Your task to perform on an android device: Clear the shopping cart on bestbuy.com. Search for "razer blade" on bestbuy.com, select the first entry, and add it to the cart. Image 0: 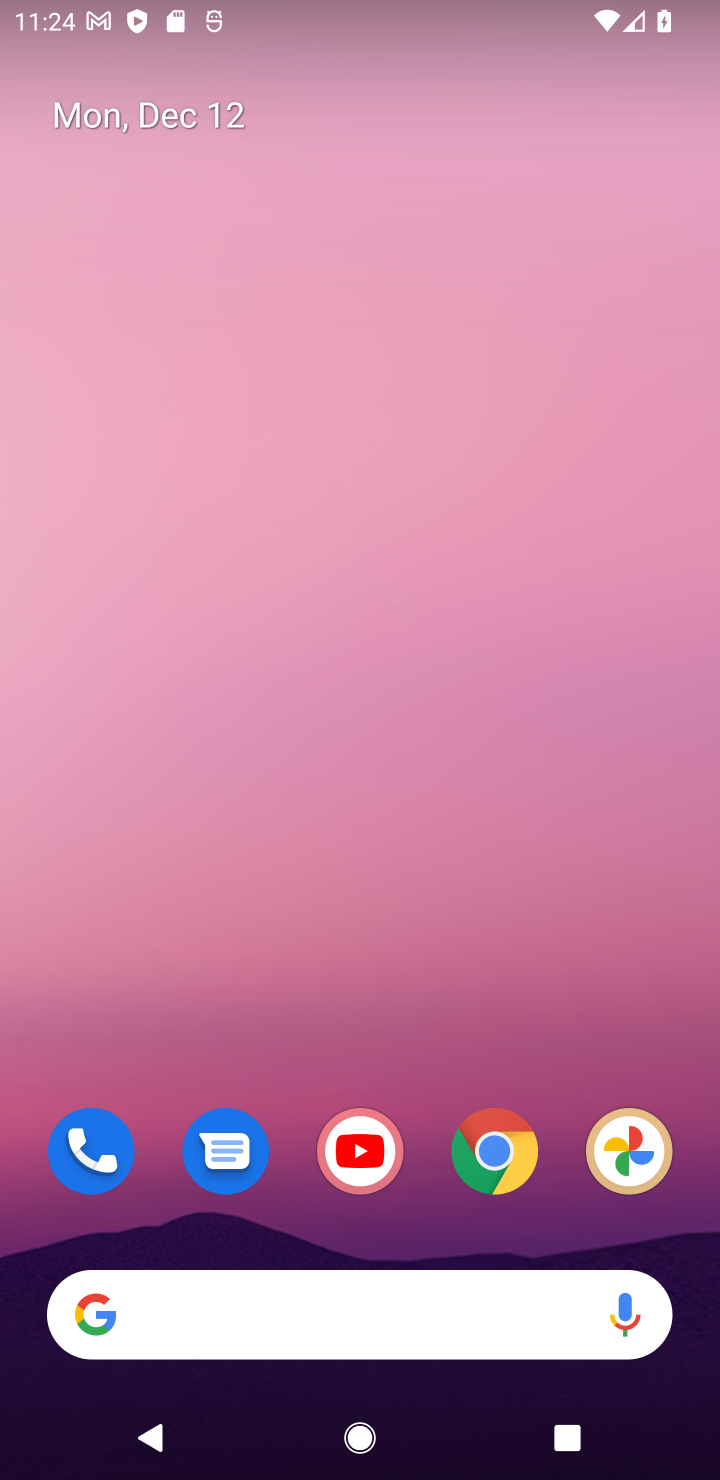
Step 0: drag from (351, 1257) to (449, 75)
Your task to perform on an android device: Clear the shopping cart on bestbuy.com. Search for "razer blade" on bestbuy.com, select the first entry, and add it to the cart. Image 1: 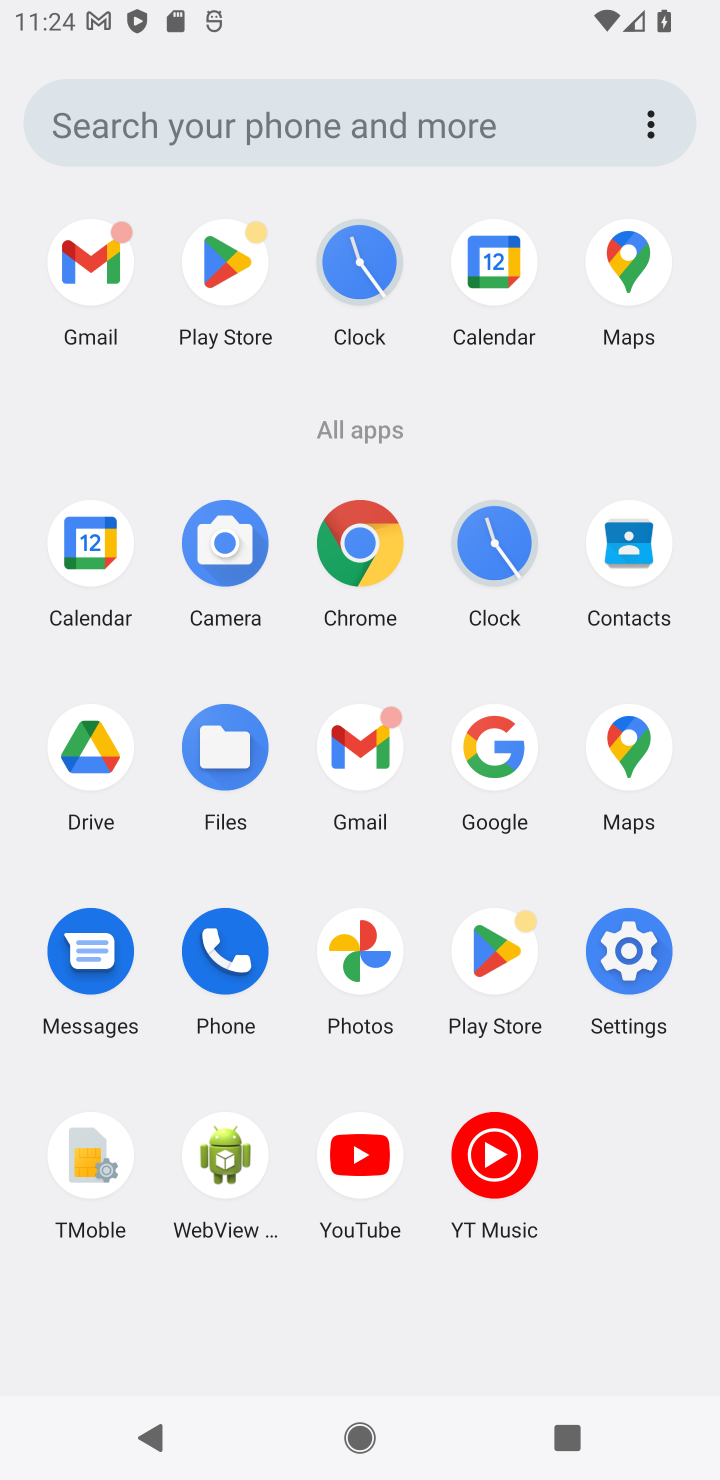
Step 1: click (521, 752)
Your task to perform on an android device: Clear the shopping cart on bestbuy.com. Search for "razer blade" on bestbuy.com, select the first entry, and add it to the cart. Image 2: 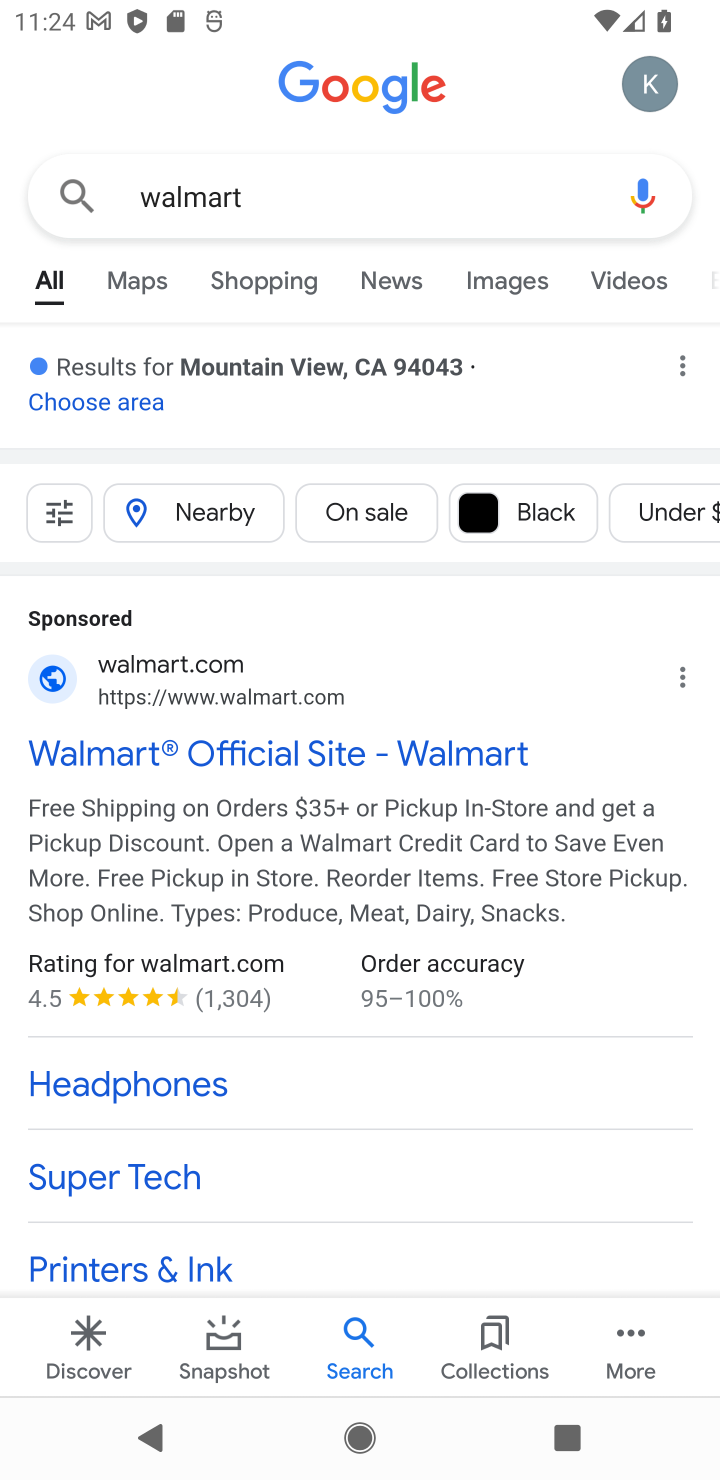
Step 2: click (216, 190)
Your task to perform on an android device: Clear the shopping cart on bestbuy.com. Search for "razer blade" on bestbuy.com, select the first entry, and add it to the cart. Image 3: 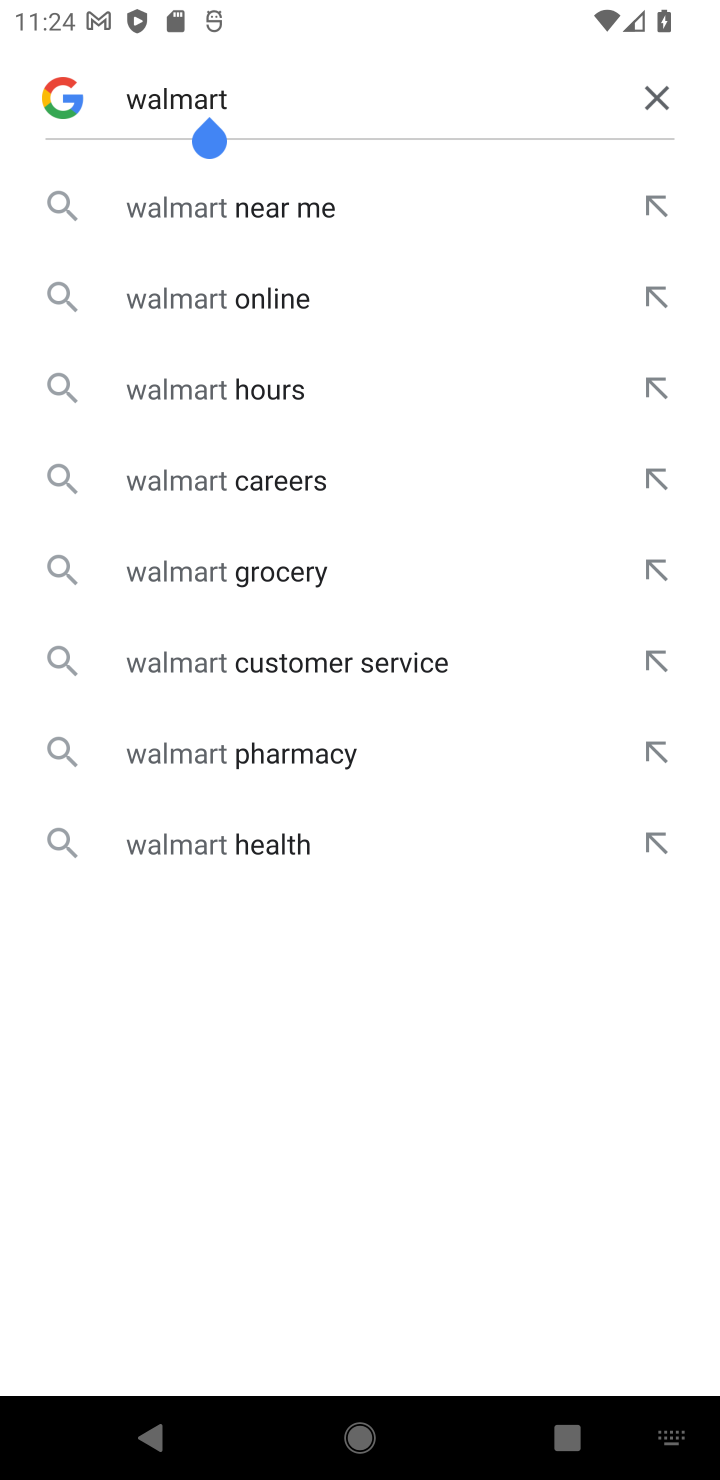
Step 3: click (655, 96)
Your task to perform on an android device: Clear the shopping cart on bestbuy.com. Search for "razer blade" on bestbuy.com, select the first entry, and add it to the cart. Image 4: 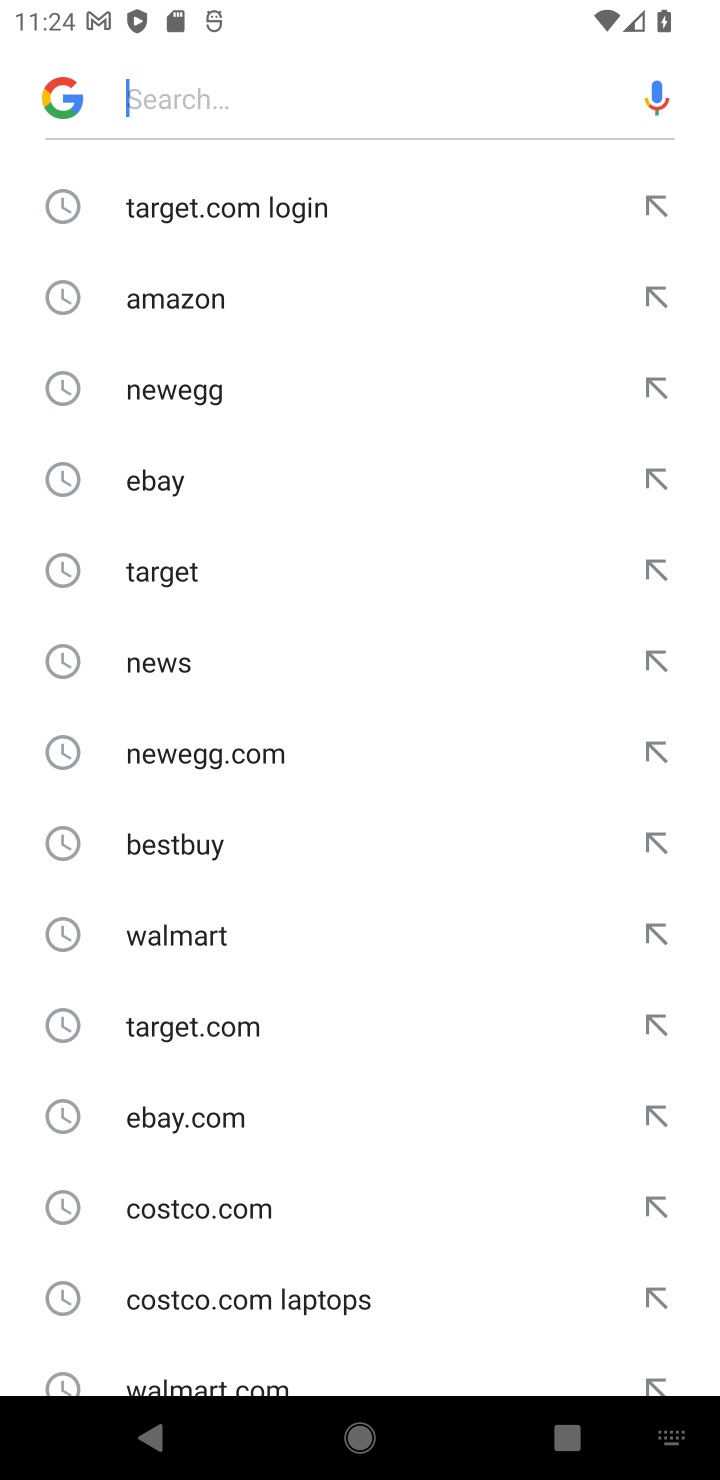
Step 4: click (196, 843)
Your task to perform on an android device: Clear the shopping cart on bestbuy.com. Search for "razer blade" on bestbuy.com, select the first entry, and add it to the cart. Image 5: 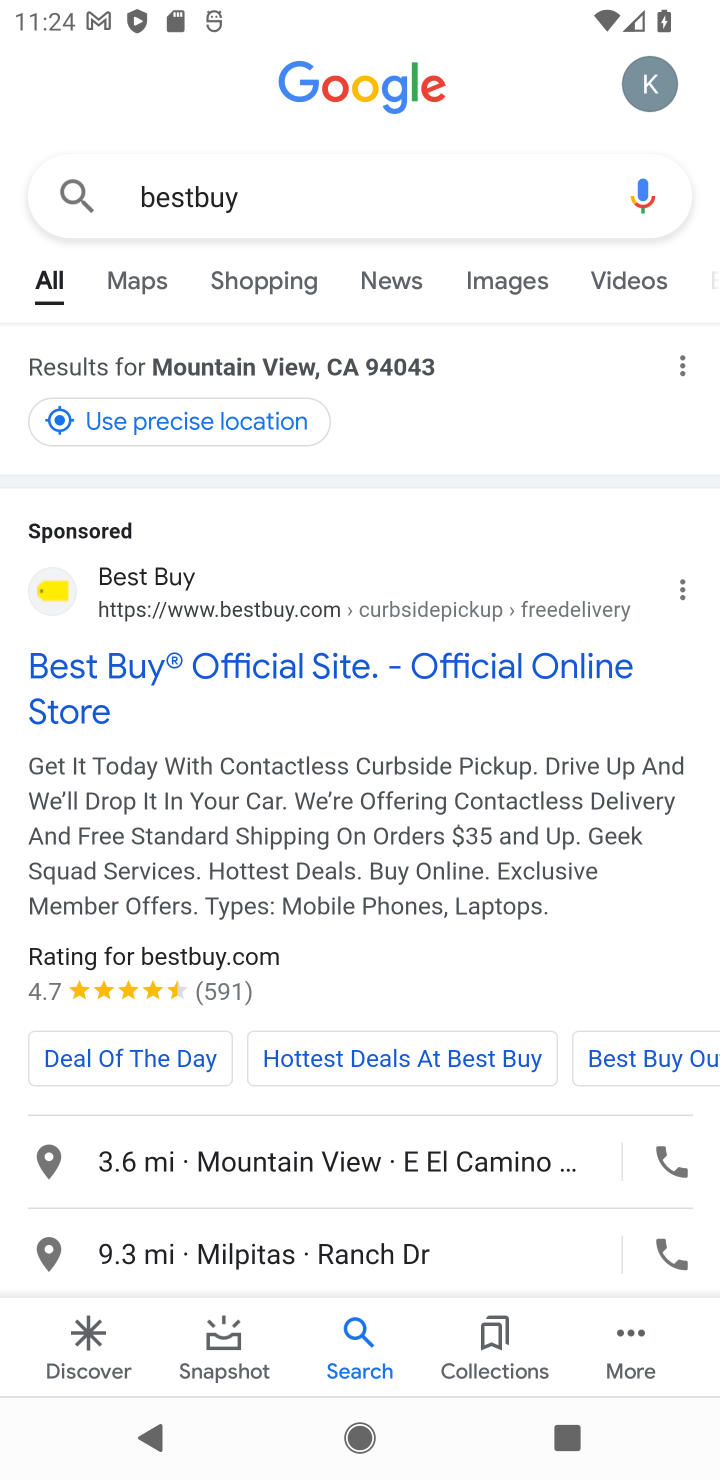
Step 5: click (140, 683)
Your task to perform on an android device: Clear the shopping cart on bestbuy.com. Search for "razer blade" on bestbuy.com, select the first entry, and add it to the cart. Image 6: 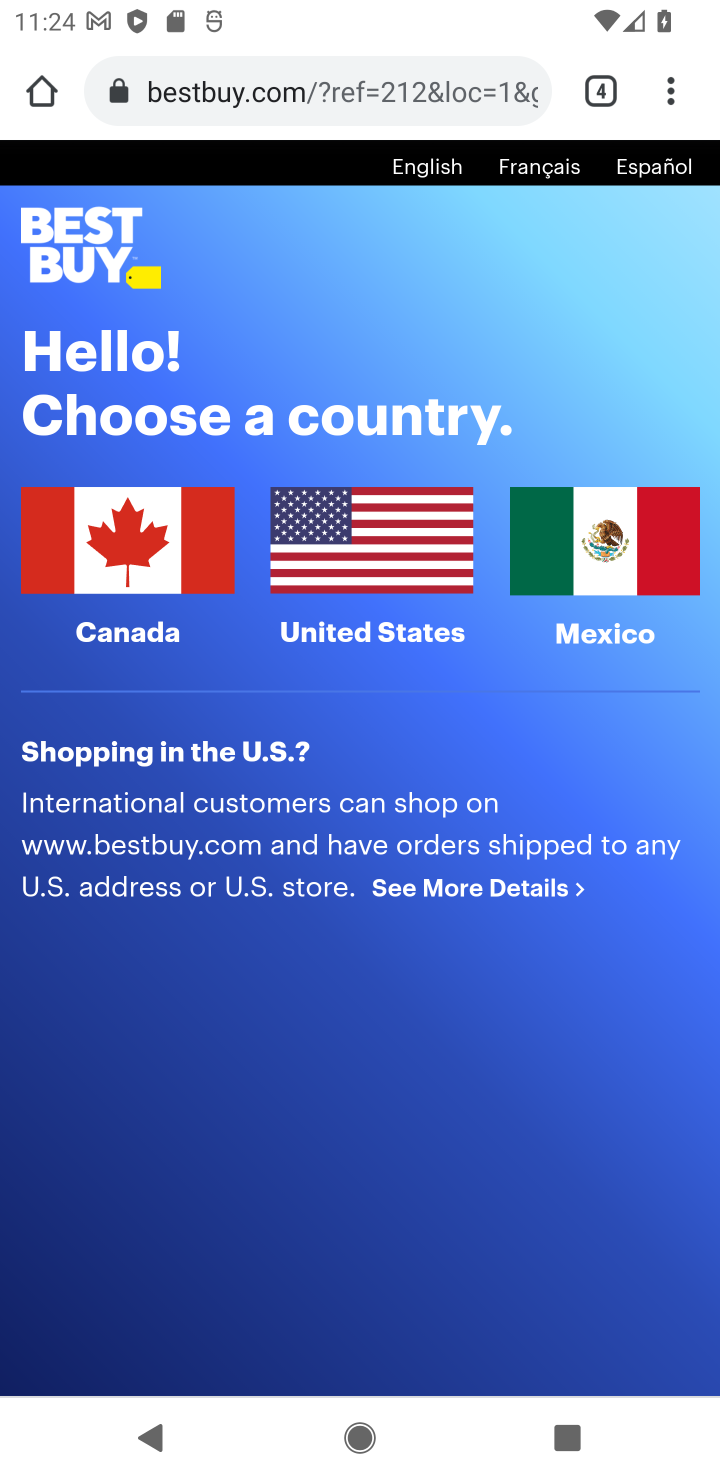
Step 6: click (375, 554)
Your task to perform on an android device: Clear the shopping cart on bestbuy.com. Search for "razer blade" on bestbuy.com, select the first entry, and add it to the cart. Image 7: 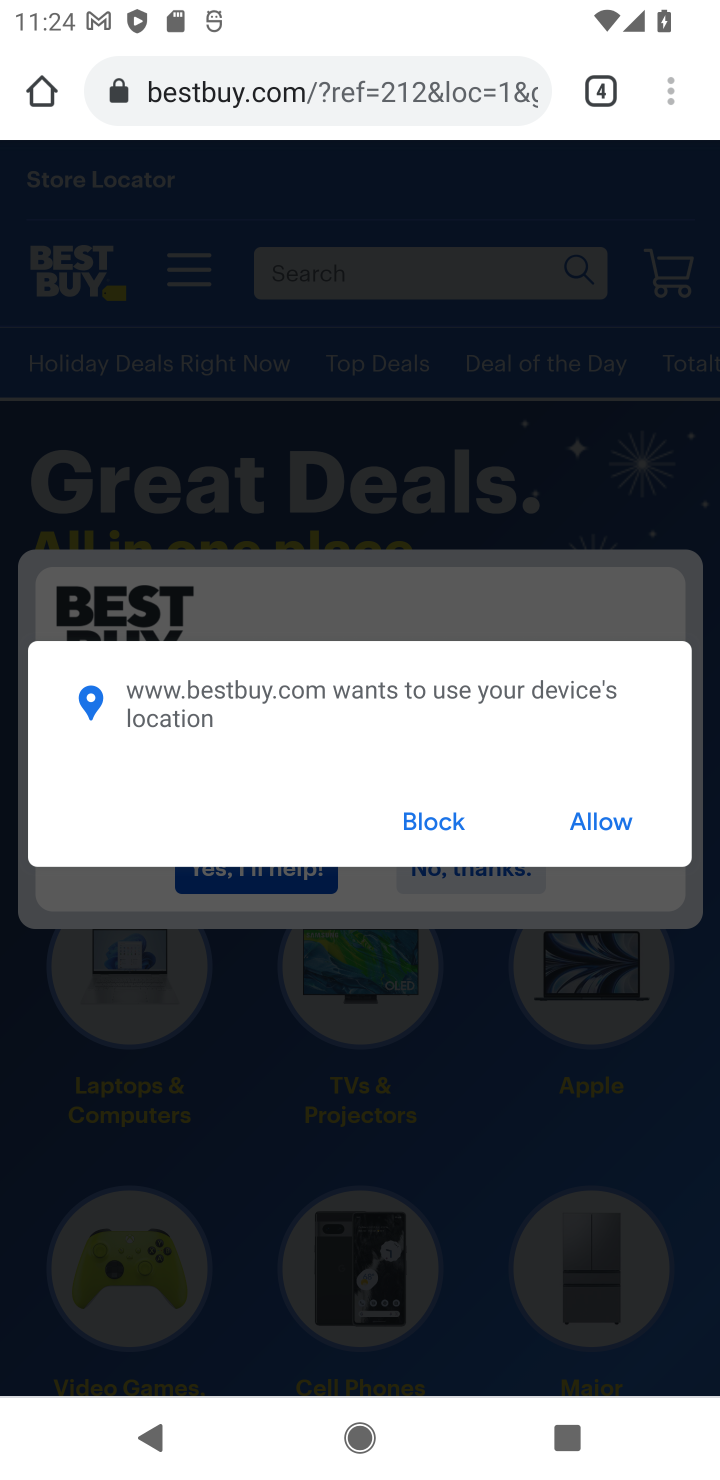
Step 7: click (587, 822)
Your task to perform on an android device: Clear the shopping cart on bestbuy.com. Search for "razer blade" on bestbuy.com, select the first entry, and add it to the cart. Image 8: 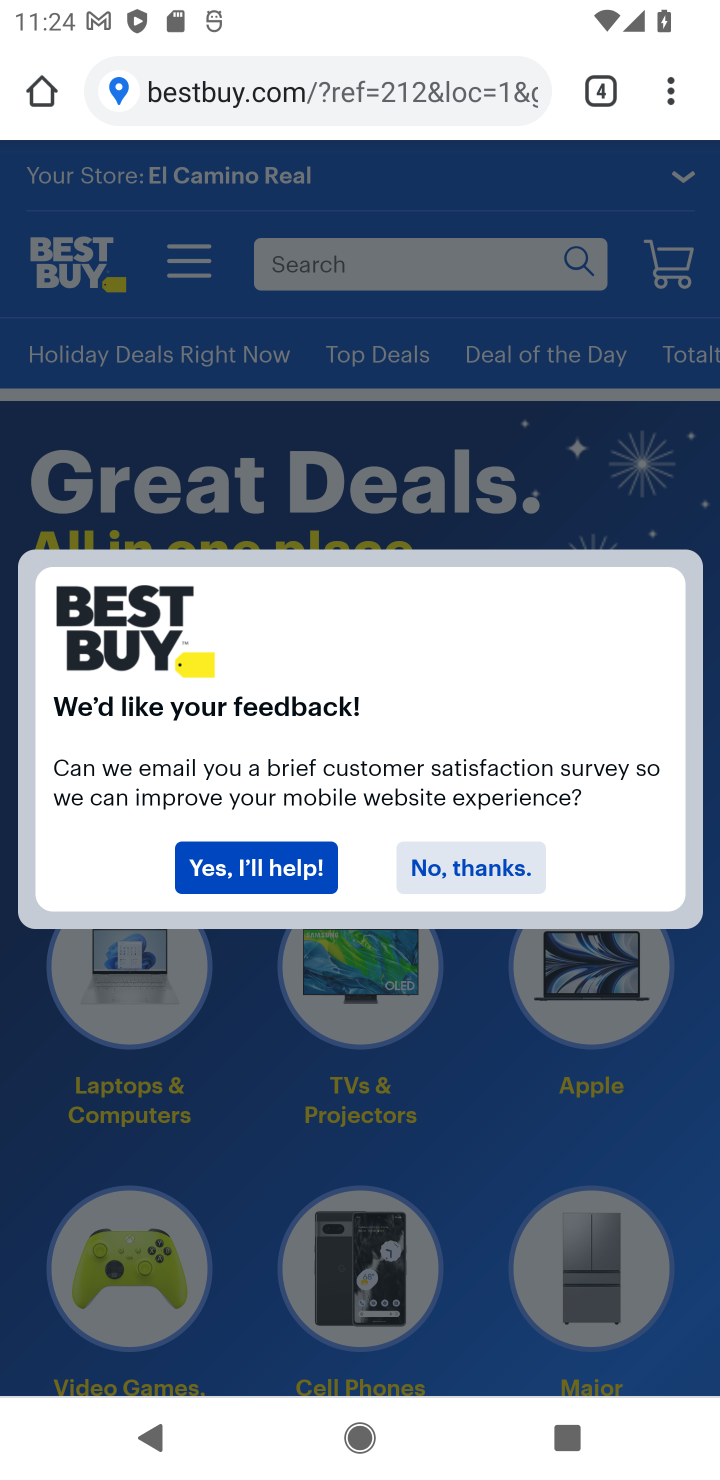
Step 8: click (473, 864)
Your task to perform on an android device: Clear the shopping cart on bestbuy.com. Search for "razer blade" on bestbuy.com, select the first entry, and add it to the cart. Image 9: 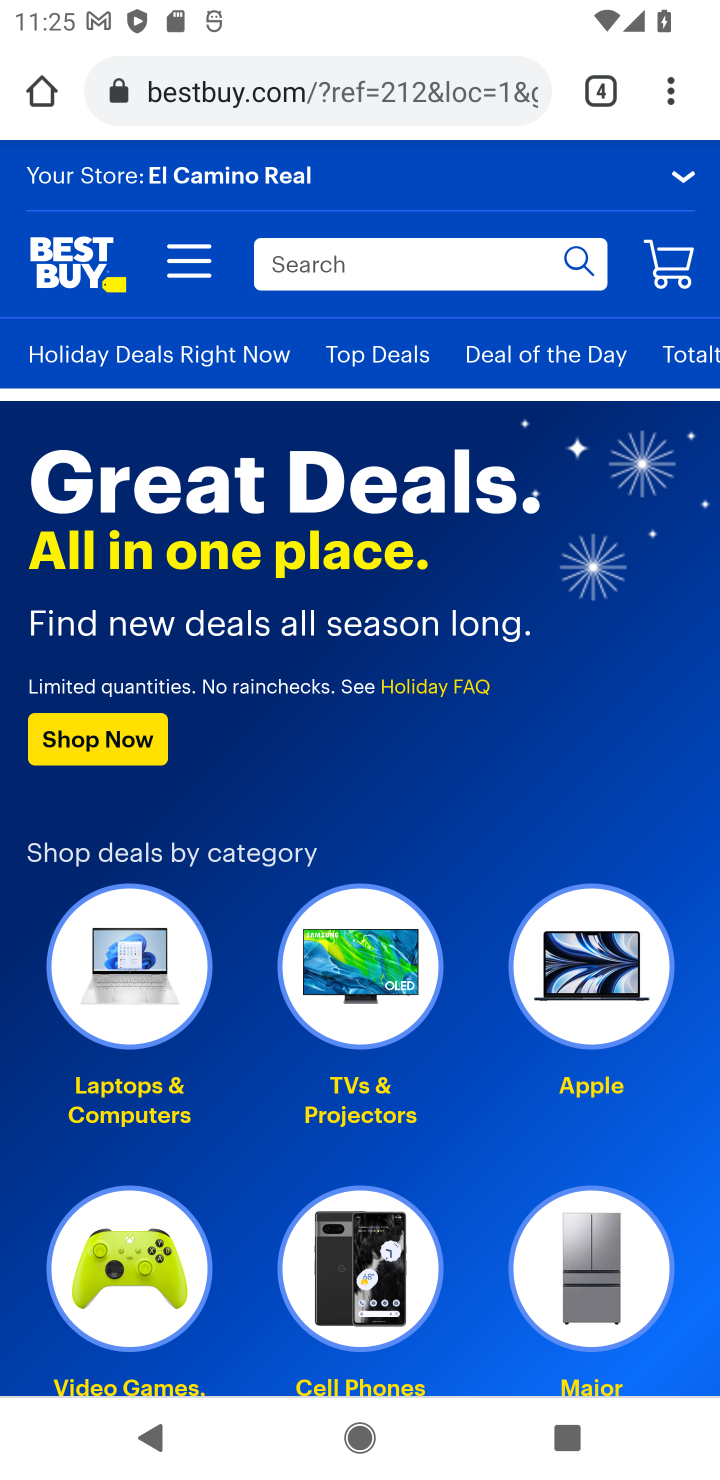
Step 9: click (399, 260)
Your task to perform on an android device: Clear the shopping cart on bestbuy.com. Search for "razer blade" on bestbuy.com, select the first entry, and add it to the cart. Image 10: 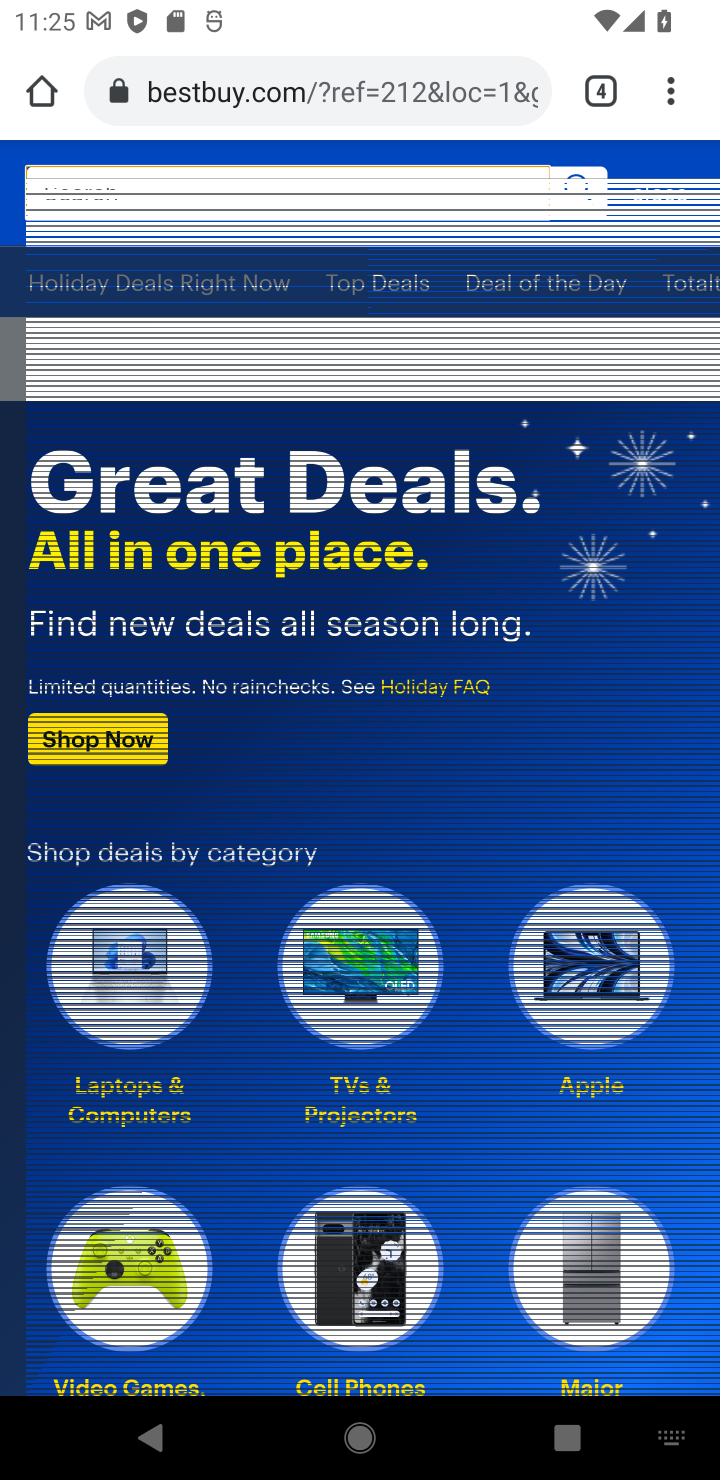
Step 10: type "razer blade"
Your task to perform on an android device: Clear the shopping cart on bestbuy.com. Search for "razer blade" on bestbuy.com, select the first entry, and add it to the cart. Image 11: 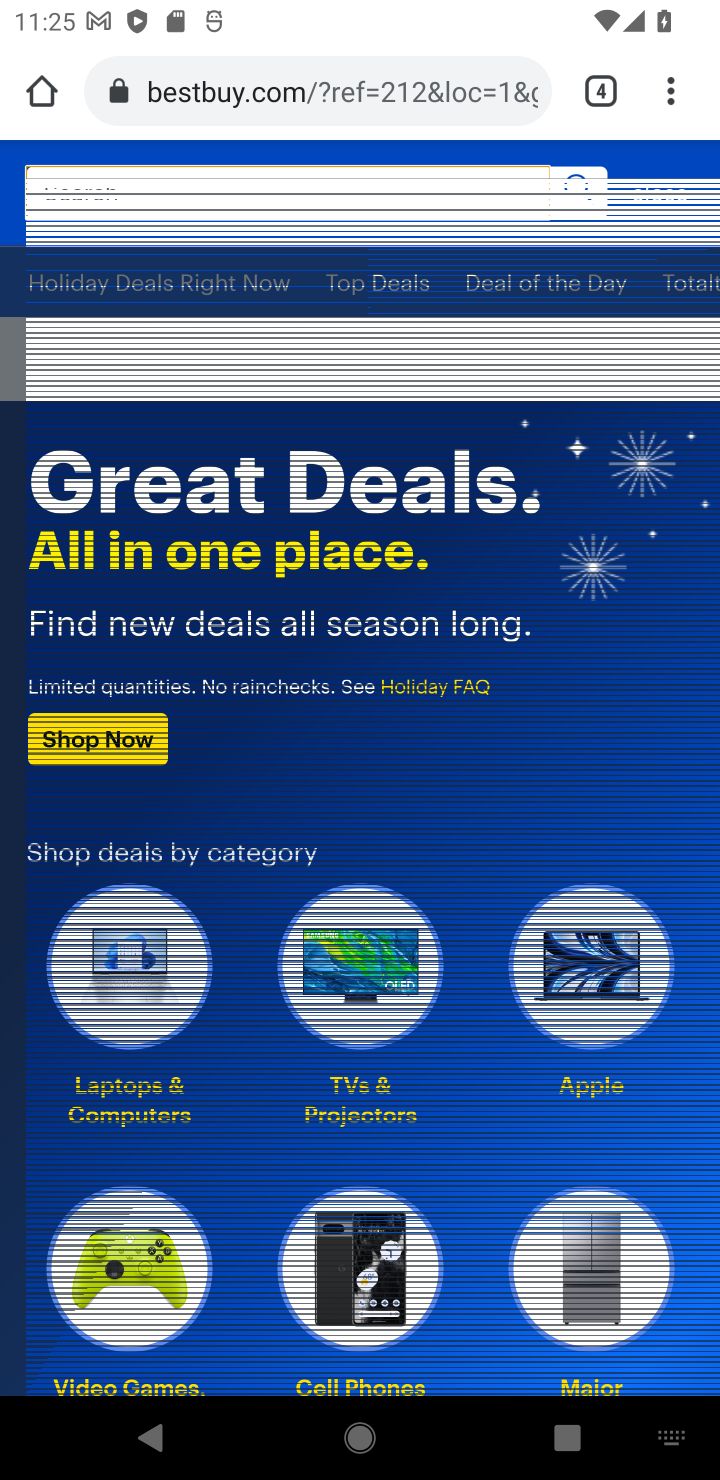
Step 11: click (583, 195)
Your task to perform on an android device: Clear the shopping cart on bestbuy.com. Search for "razer blade" on bestbuy.com, select the first entry, and add it to the cart. Image 12: 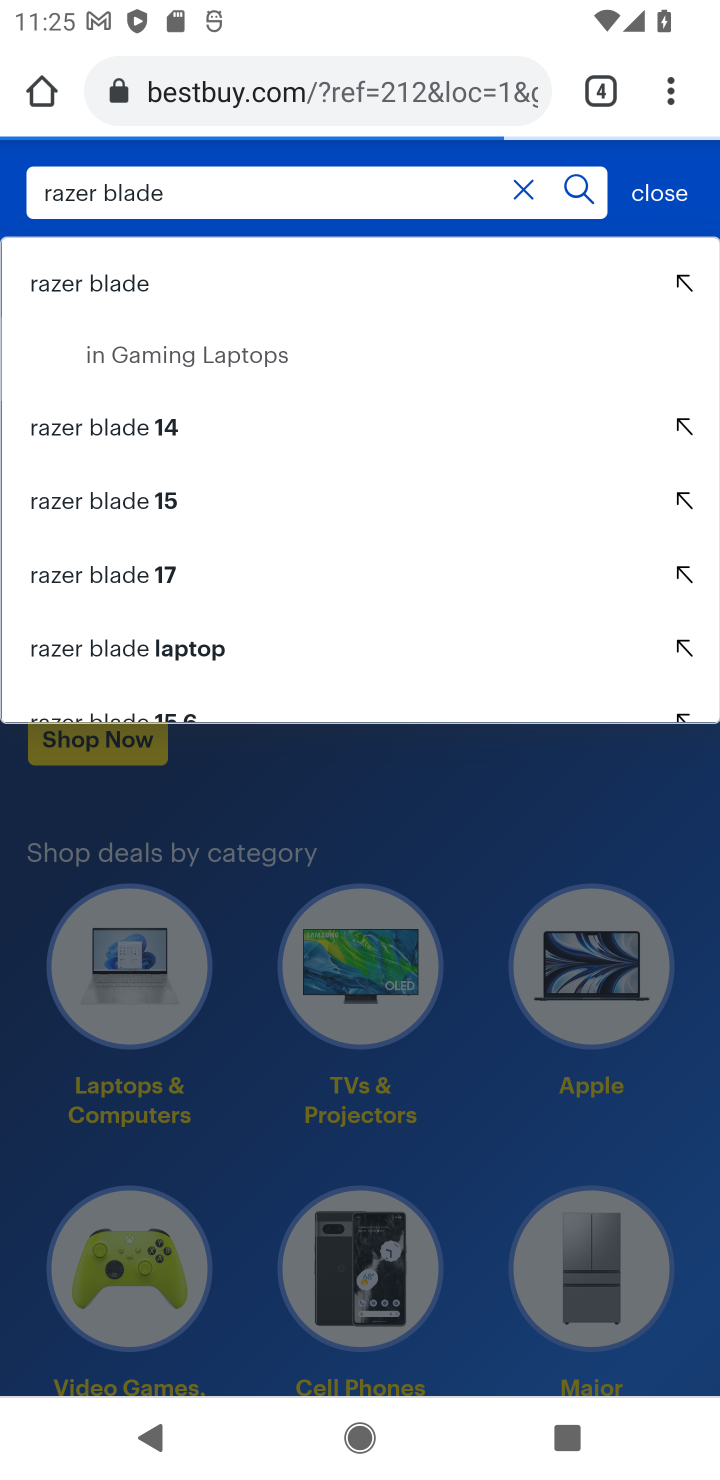
Step 12: click (89, 280)
Your task to perform on an android device: Clear the shopping cart on bestbuy.com. Search for "razer blade" on bestbuy.com, select the first entry, and add it to the cart. Image 13: 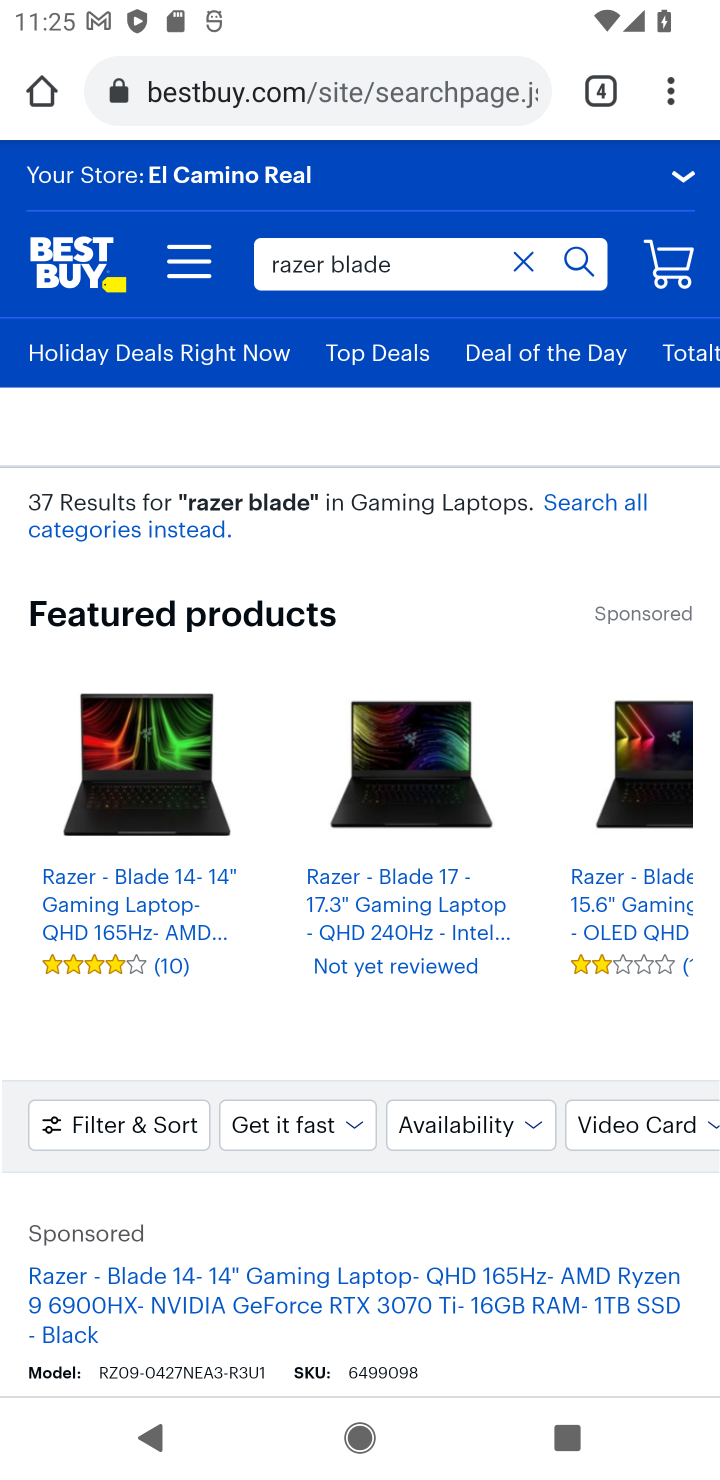
Step 13: drag from (404, 1198) to (404, 546)
Your task to perform on an android device: Clear the shopping cart on bestbuy.com. Search for "razer blade" on bestbuy.com, select the first entry, and add it to the cart. Image 14: 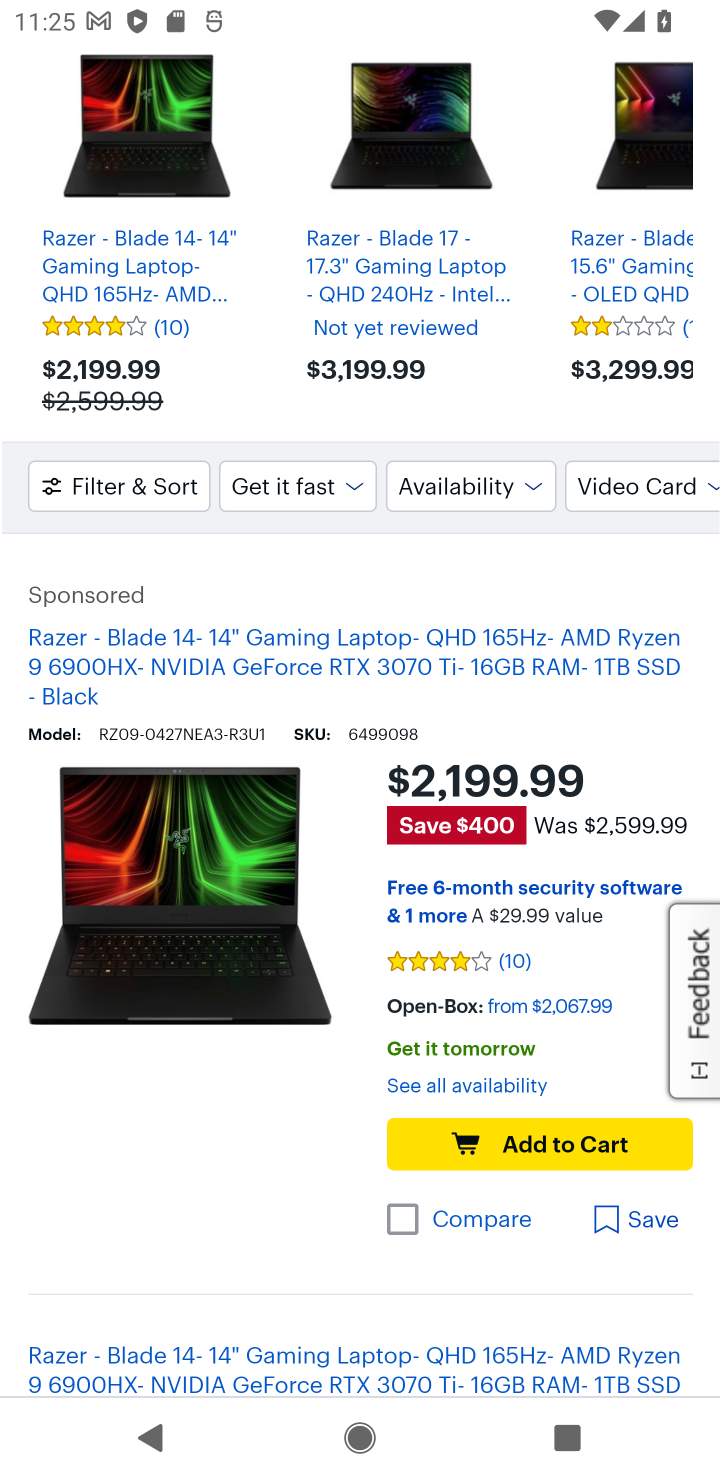
Step 14: click (571, 1152)
Your task to perform on an android device: Clear the shopping cart on bestbuy.com. Search for "razer blade" on bestbuy.com, select the first entry, and add it to the cart. Image 15: 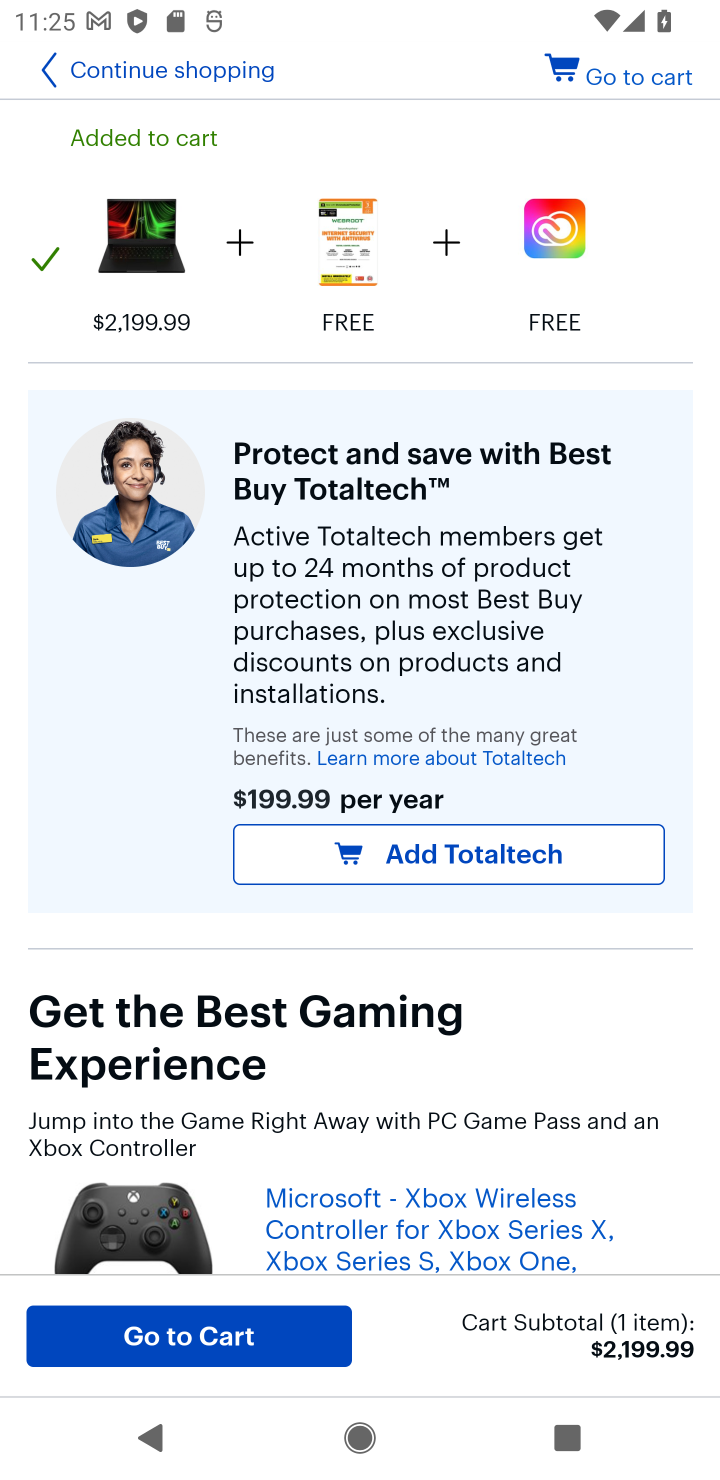
Step 15: click (190, 1333)
Your task to perform on an android device: Clear the shopping cart on bestbuy.com. Search for "razer blade" on bestbuy.com, select the first entry, and add it to the cart. Image 16: 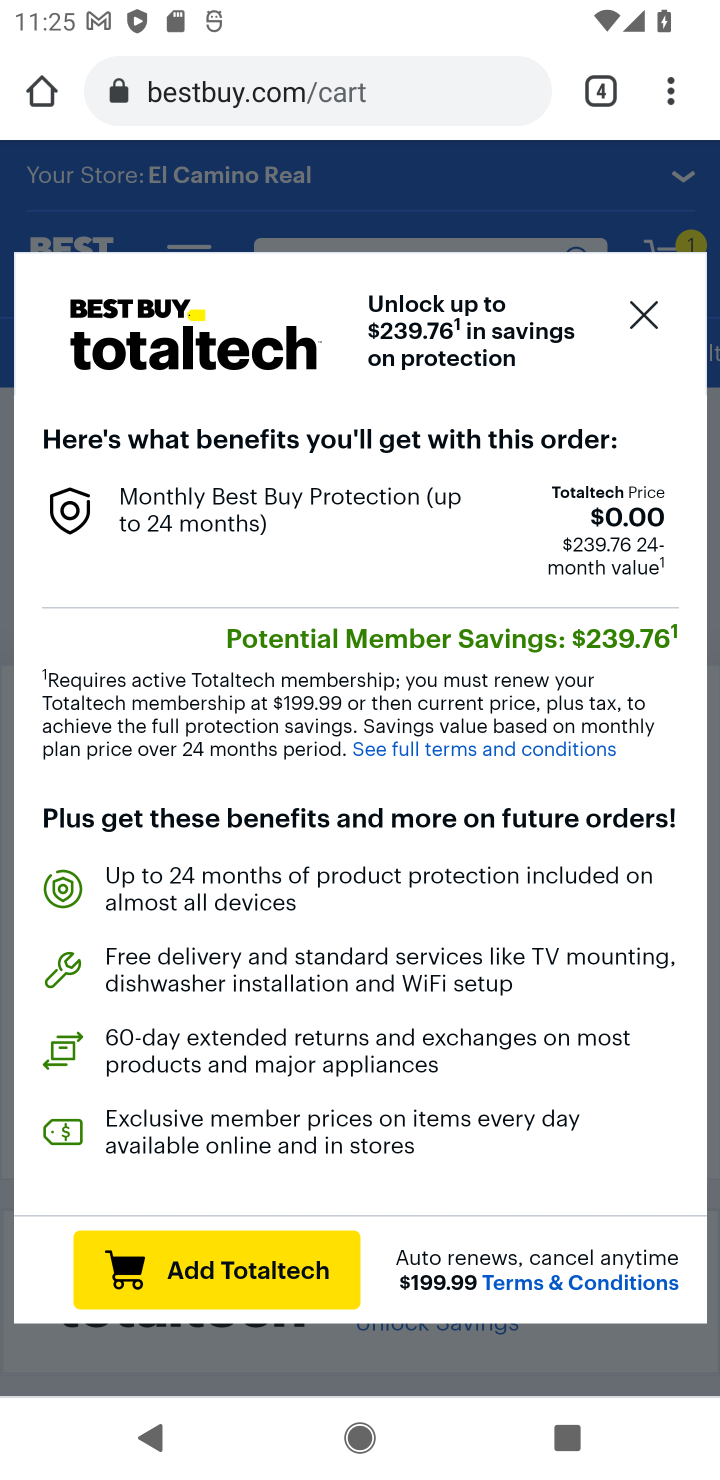
Step 16: click (660, 302)
Your task to perform on an android device: Clear the shopping cart on bestbuy.com. Search for "razer blade" on bestbuy.com, select the first entry, and add it to the cart. Image 17: 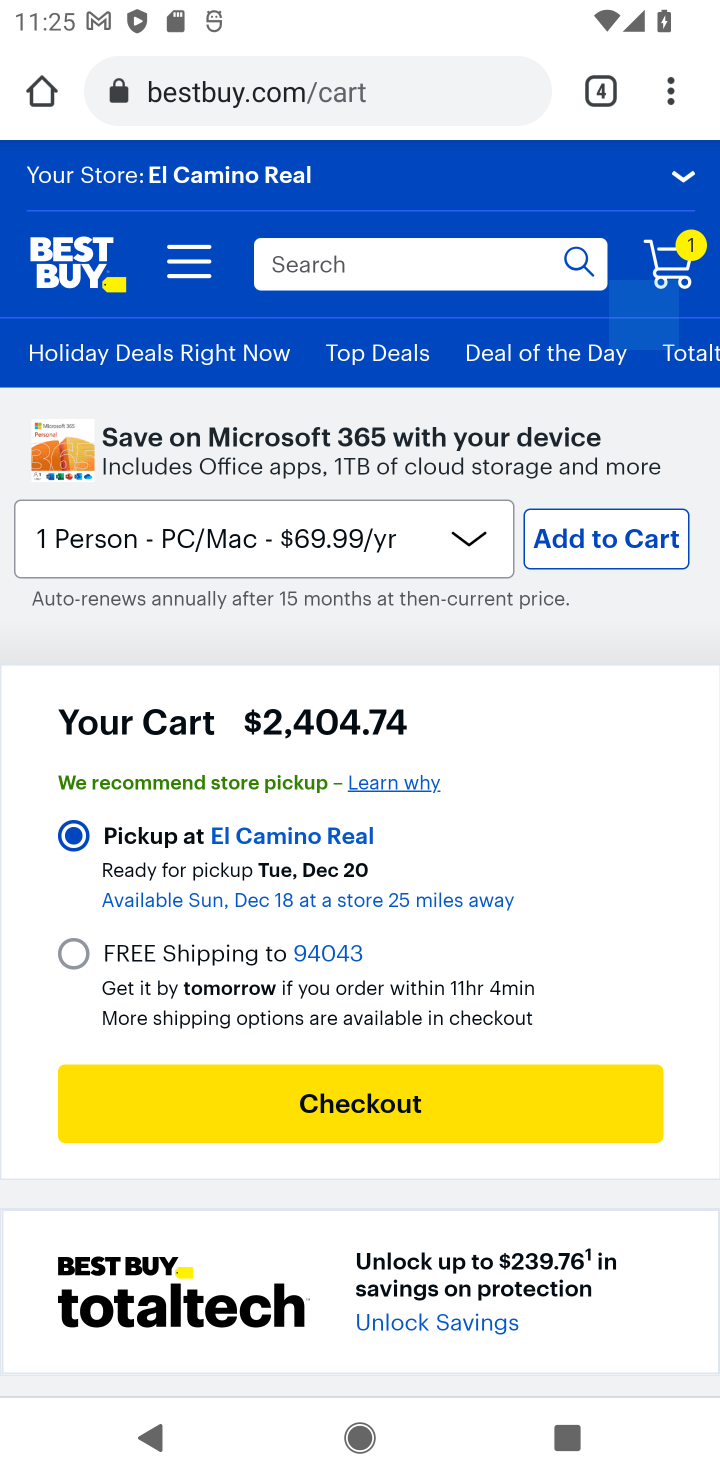
Step 17: click (408, 1109)
Your task to perform on an android device: Clear the shopping cart on bestbuy.com. Search for "razer blade" on bestbuy.com, select the first entry, and add it to the cart. Image 18: 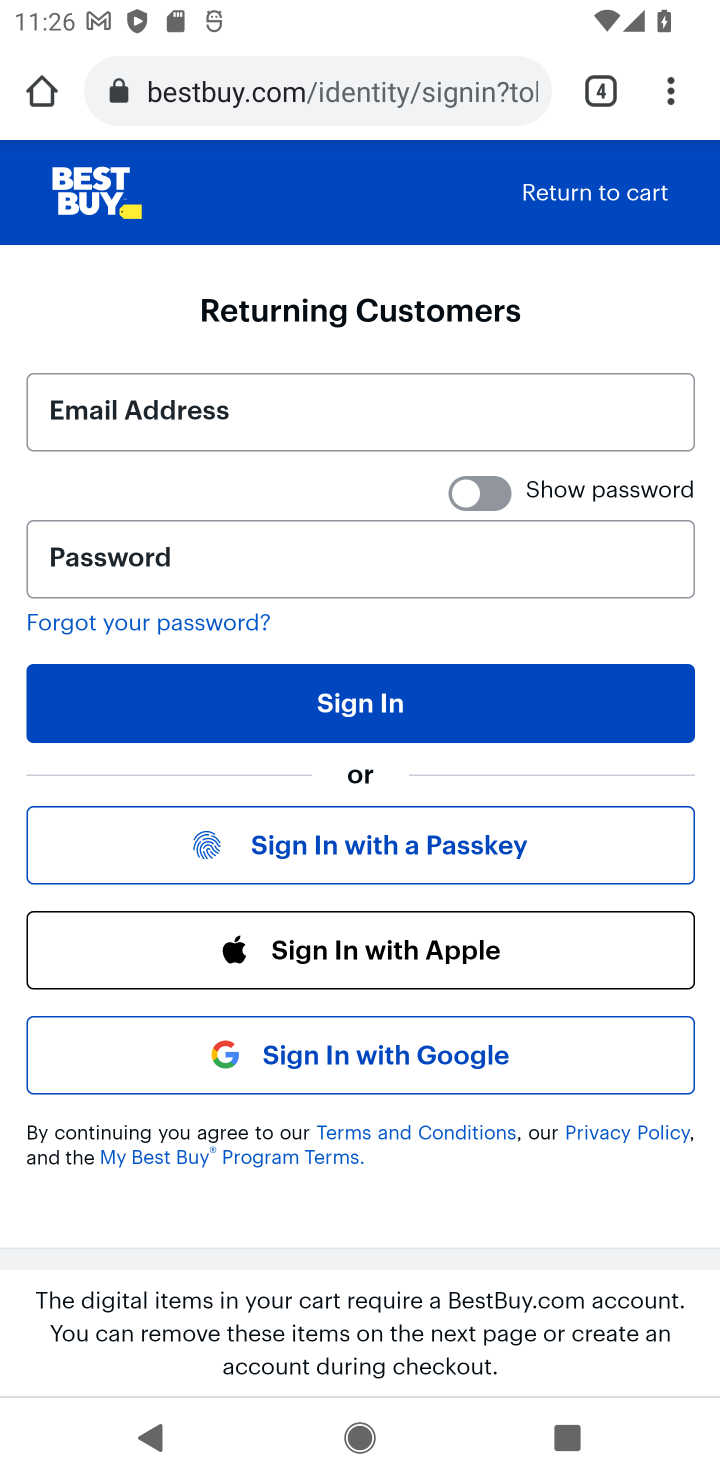
Step 18: task complete